Your task to perform on an android device: star an email in the gmail app Image 0: 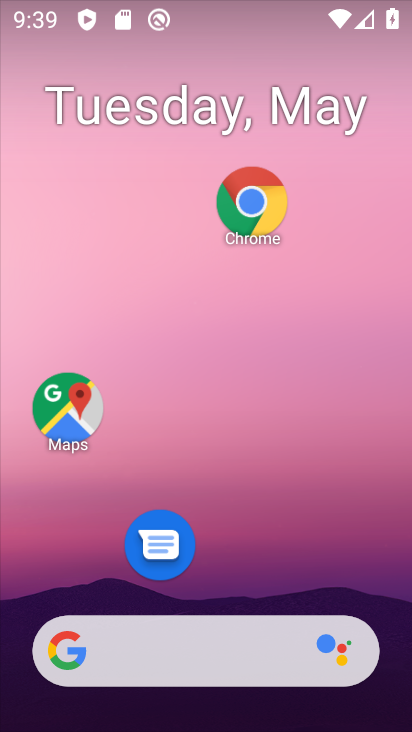
Step 0: drag from (394, 595) to (331, 158)
Your task to perform on an android device: star an email in the gmail app Image 1: 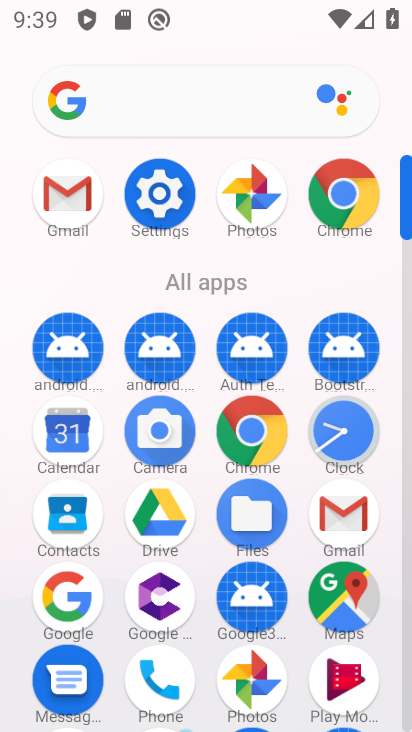
Step 1: click (62, 195)
Your task to perform on an android device: star an email in the gmail app Image 2: 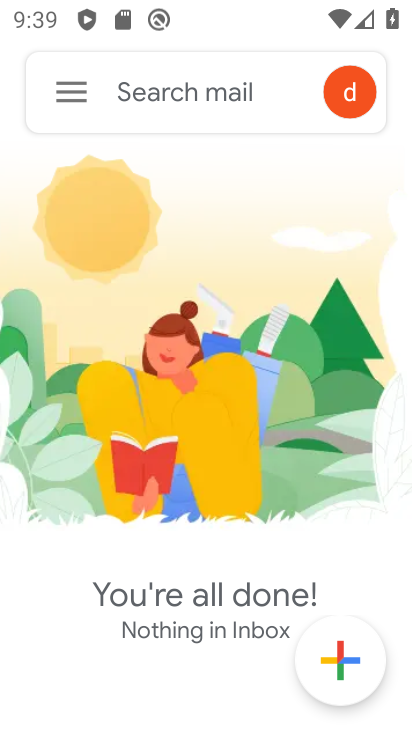
Step 2: task complete